Your task to perform on an android device: turn off notifications settings in the gmail app Image 0: 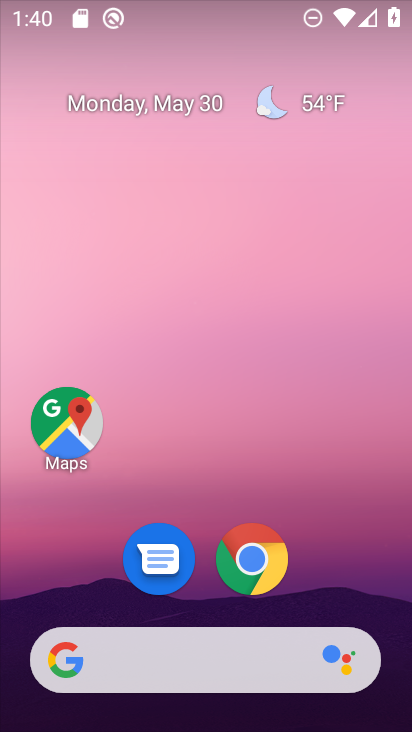
Step 0: drag from (338, 590) to (353, 117)
Your task to perform on an android device: turn off notifications settings in the gmail app Image 1: 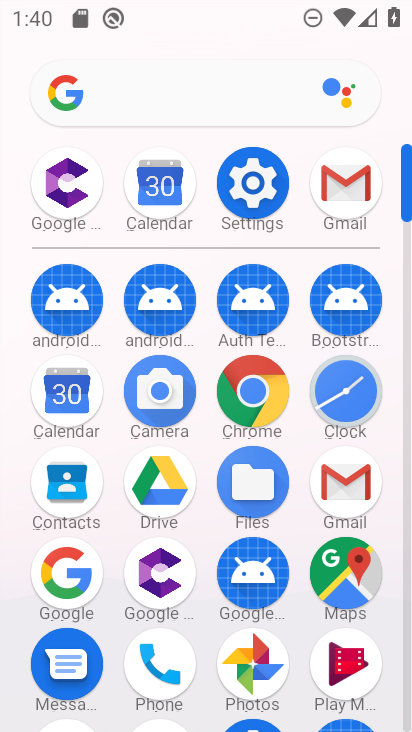
Step 1: click (345, 199)
Your task to perform on an android device: turn off notifications settings in the gmail app Image 2: 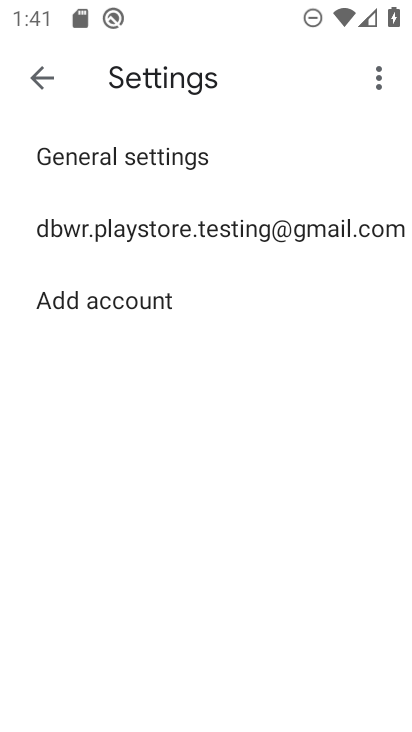
Step 2: click (321, 236)
Your task to perform on an android device: turn off notifications settings in the gmail app Image 3: 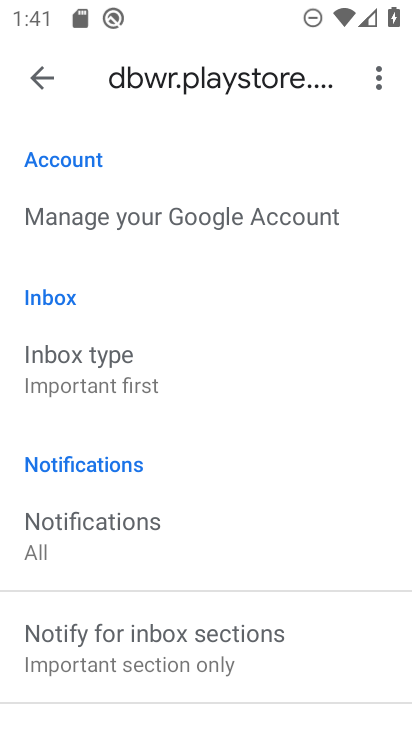
Step 3: drag from (164, 639) to (199, 116)
Your task to perform on an android device: turn off notifications settings in the gmail app Image 4: 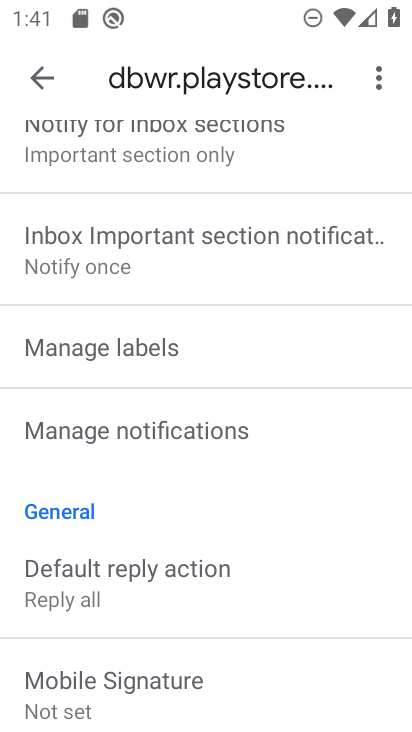
Step 4: click (152, 440)
Your task to perform on an android device: turn off notifications settings in the gmail app Image 5: 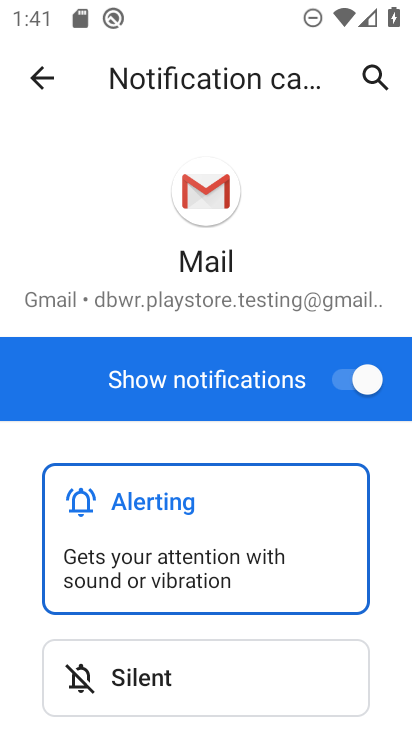
Step 5: click (348, 384)
Your task to perform on an android device: turn off notifications settings in the gmail app Image 6: 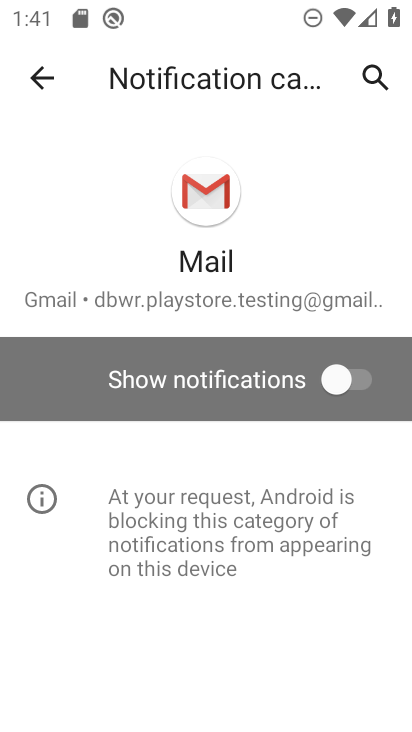
Step 6: task complete